Your task to perform on an android device: Open location settings Image 0: 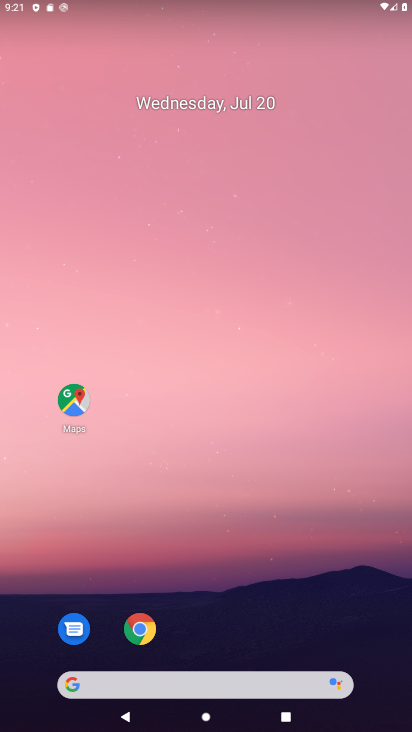
Step 0: drag from (305, 631) to (305, 108)
Your task to perform on an android device: Open location settings Image 1: 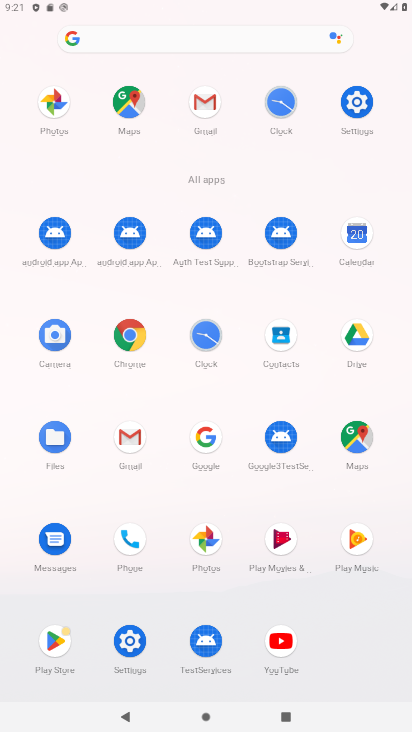
Step 1: click (359, 105)
Your task to perform on an android device: Open location settings Image 2: 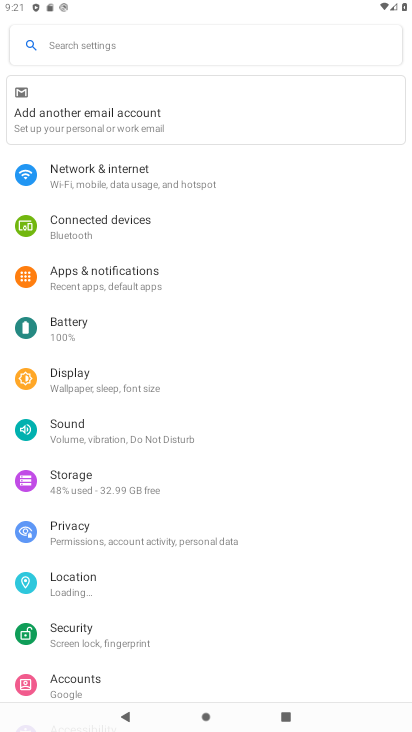
Step 2: click (78, 584)
Your task to perform on an android device: Open location settings Image 3: 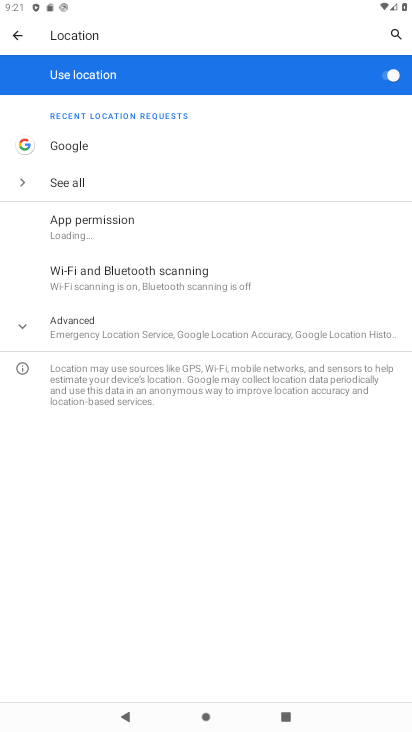
Step 3: click (141, 336)
Your task to perform on an android device: Open location settings Image 4: 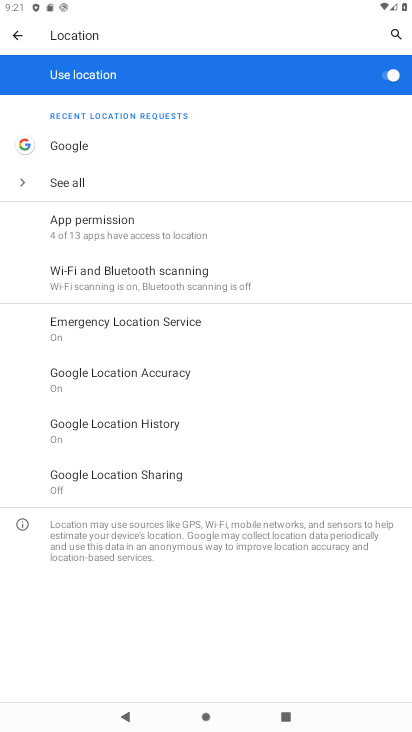
Step 4: task complete